Your task to perform on an android device: Empty the shopping cart on newegg. Add "logitech g502" to the cart on newegg, then select checkout. Image 0: 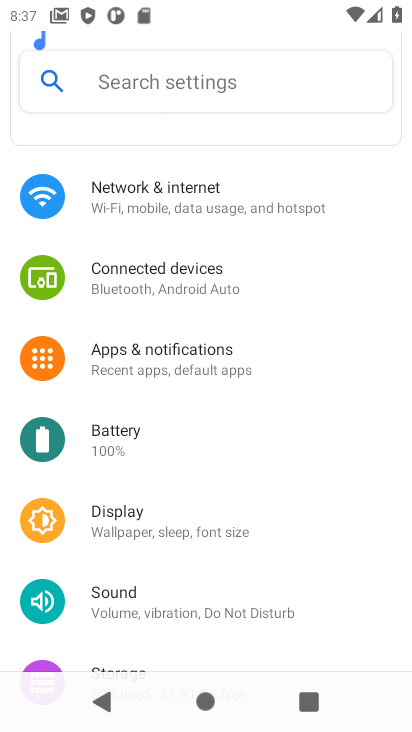
Step 0: press home button
Your task to perform on an android device: Empty the shopping cart on newegg. Add "logitech g502" to the cart on newegg, then select checkout. Image 1: 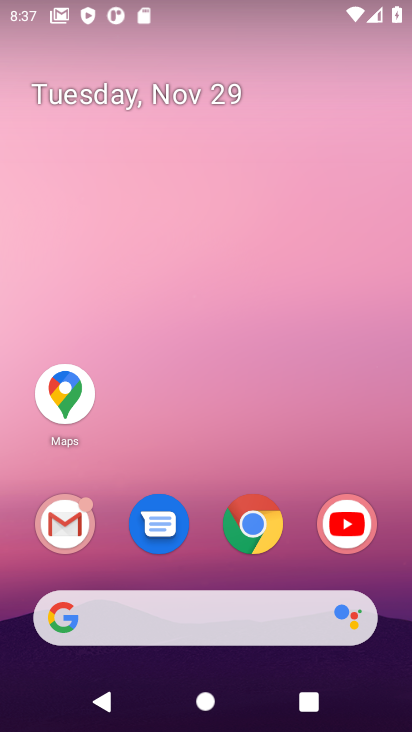
Step 1: click (248, 534)
Your task to perform on an android device: Empty the shopping cart on newegg. Add "logitech g502" to the cart on newegg, then select checkout. Image 2: 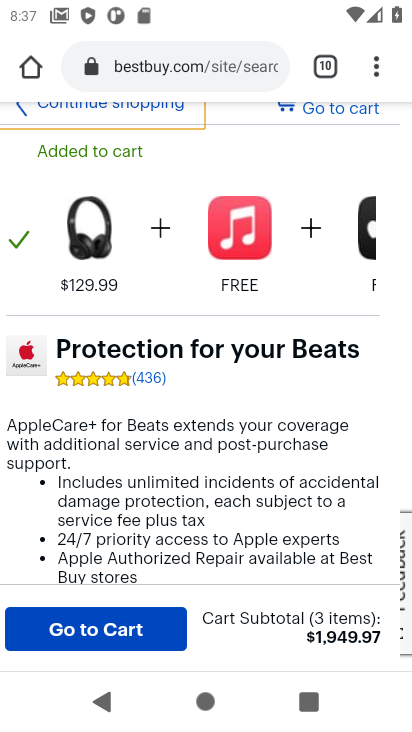
Step 2: click (148, 68)
Your task to perform on an android device: Empty the shopping cart on newegg. Add "logitech g502" to the cart on newegg, then select checkout. Image 3: 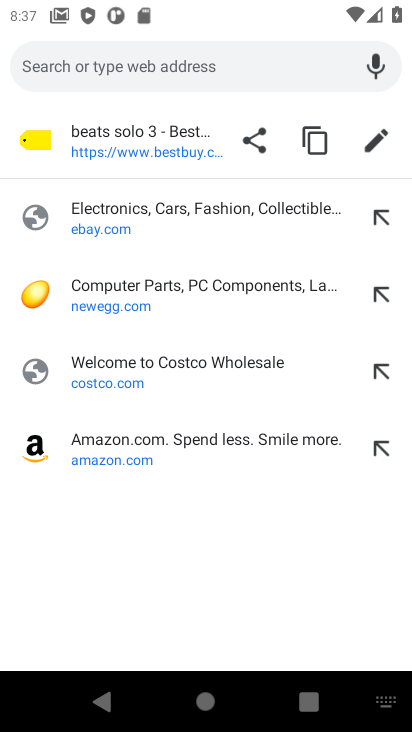
Step 3: click (105, 291)
Your task to perform on an android device: Empty the shopping cart on newegg. Add "logitech g502" to the cart on newegg, then select checkout. Image 4: 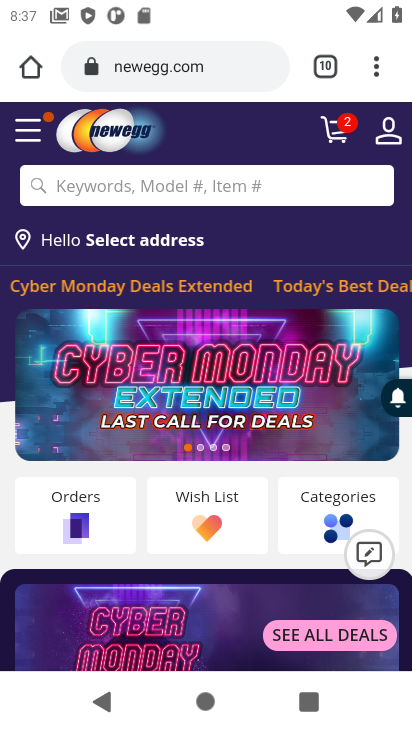
Step 4: click (337, 137)
Your task to perform on an android device: Empty the shopping cart on newegg. Add "logitech g502" to the cart on newegg, then select checkout. Image 5: 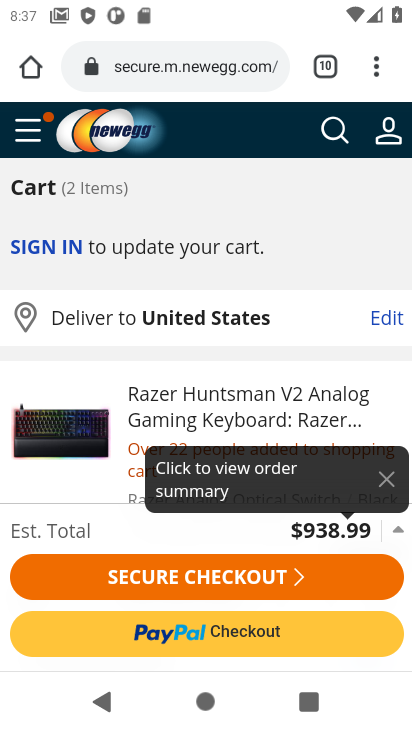
Step 5: drag from (170, 384) to (168, 240)
Your task to perform on an android device: Empty the shopping cart on newegg. Add "logitech g502" to the cart on newegg, then select checkout. Image 6: 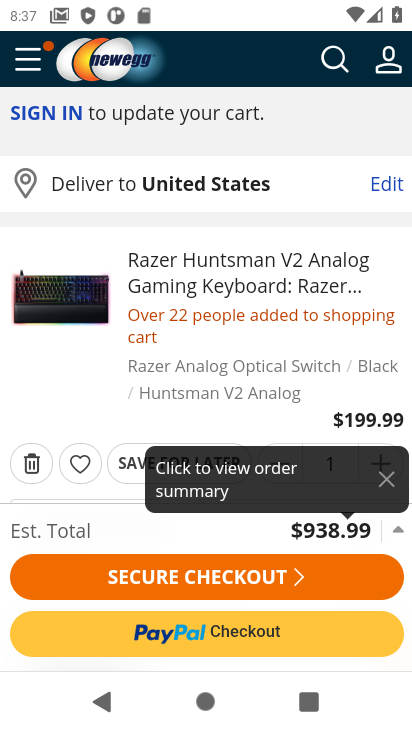
Step 6: drag from (168, 349) to (174, 251)
Your task to perform on an android device: Empty the shopping cart on newegg. Add "logitech g502" to the cart on newegg, then select checkout. Image 7: 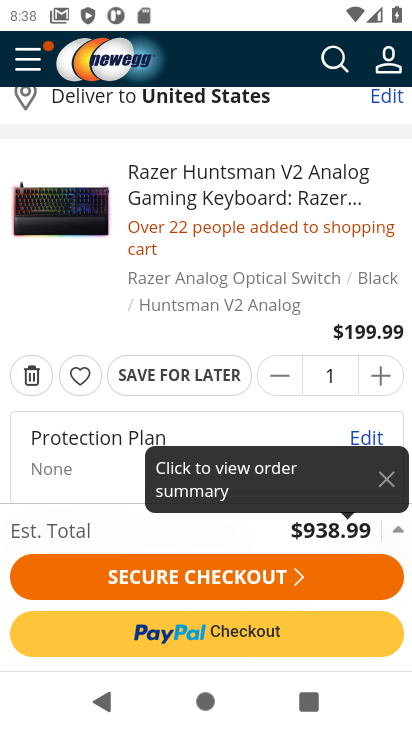
Step 7: click (33, 372)
Your task to perform on an android device: Empty the shopping cart on newegg. Add "logitech g502" to the cart on newegg, then select checkout. Image 8: 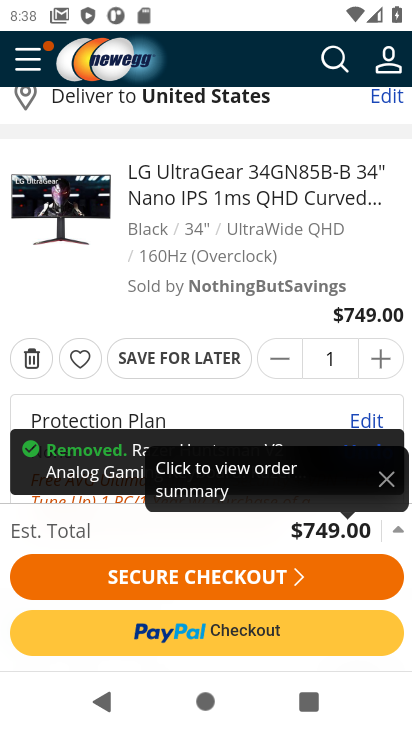
Step 8: click (33, 372)
Your task to perform on an android device: Empty the shopping cart on newegg. Add "logitech g502" to the cart on newegg, then select checkout. Image 9: 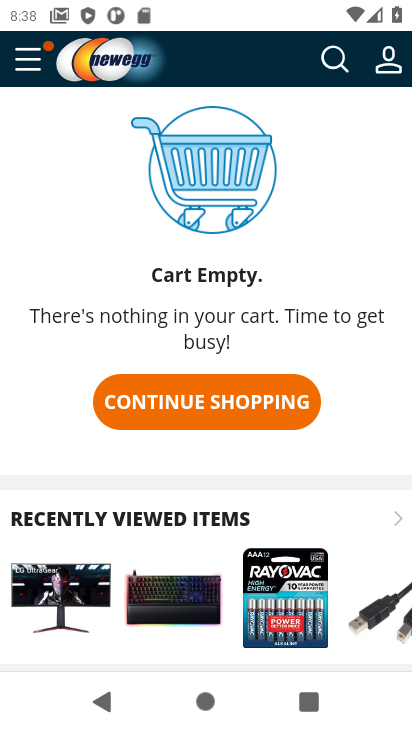
Step 9: click (333, 65)
Your task to perform on an android device: Empty the shopping cart on newegg. Add "logitech g502" to the cart on newegg, then select checkout. Image 10: 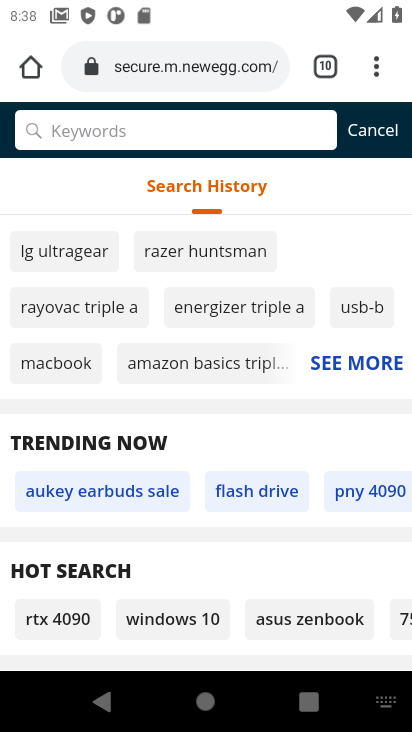
Step 10: type "logitech g502"
Your task to perform on an android device: Empty the shopping cart on newegg. Add "logitech g502" to the cart on newegg, then select checkout. Image 11: 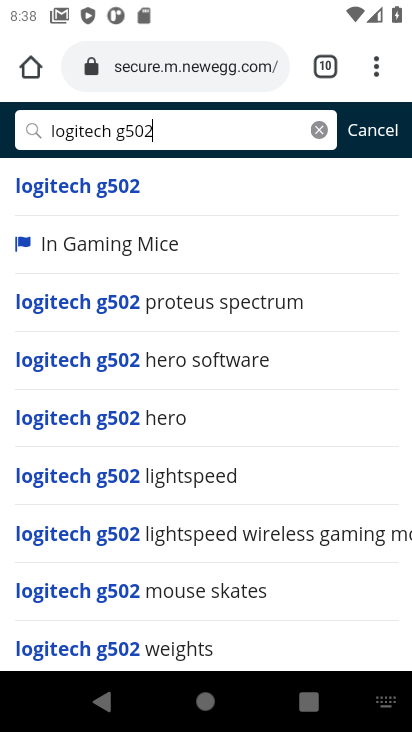
Step 11: click (102, 189)
Your task to perform on an android device: Empty the shopping cart on newegg. Add "logitech g502" to the cart on newegg, then select checkout. Image 12: 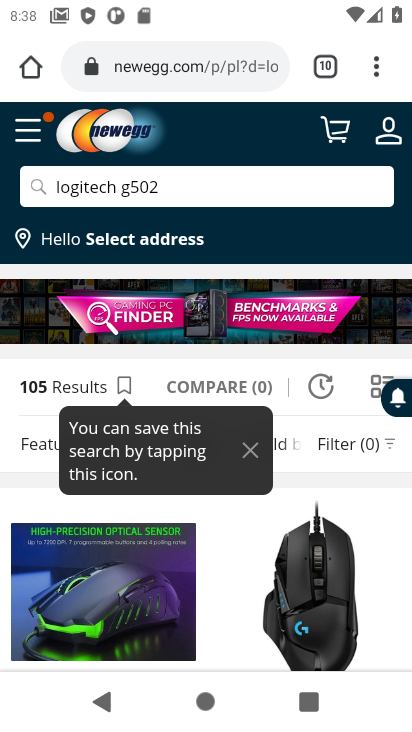
Step 12: drag from (217, 544) to (217, 265)
Your task to perform on an android device: Empty the shopping cart on newegg. Add "logitech g502" to the cart on newegg, then select checkout. Image 13: 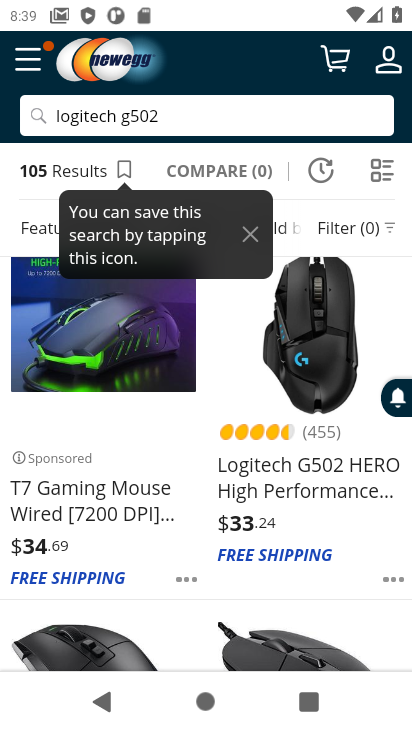
Step 13: click (306, 465)
Your task to perform on an android device: Empty the shopping cart on newegg. Add "logitech g502" to the cart on newegg, then select checkout. Image 14: 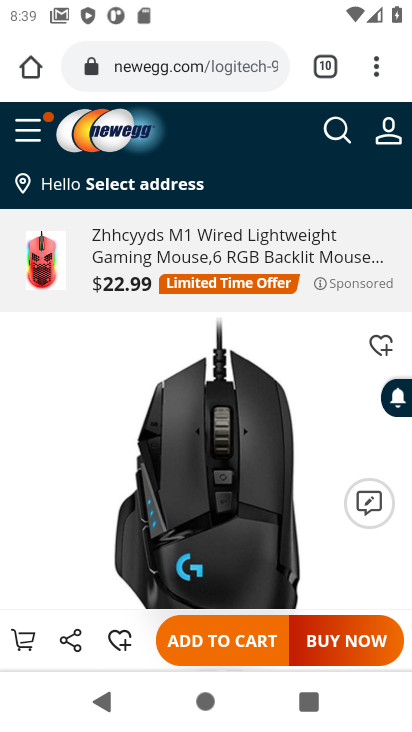
Step 14: click (223, 635)
Your task to perform on an android device: Empty the shopping cart on newegg. Add "logitech g502" to the cart on newegg, then select checkout. Image 15: 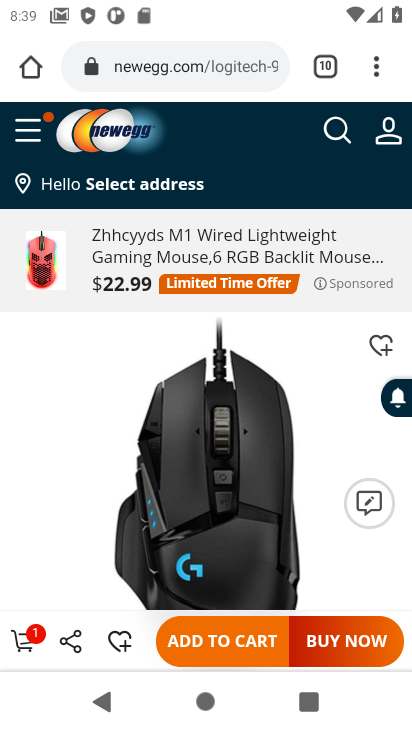
Step 15: click (24, 639)
Your task to perform on an android device: Empty the shopping cart on newegg. Add "logitech g502" to the cart on newegg, then select checkout. Image 16: 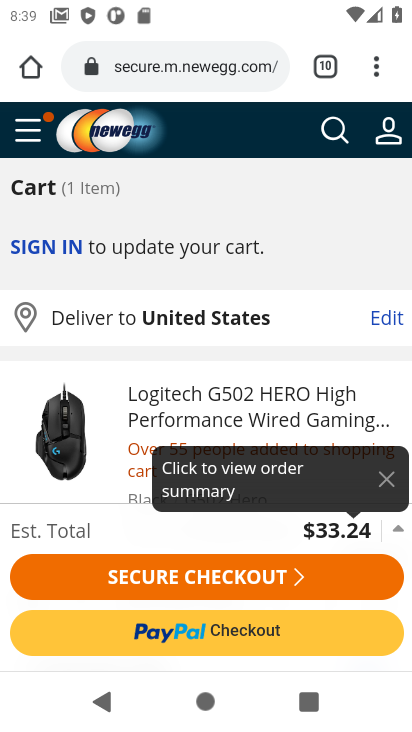
Step 16: click (172, 573)
Your task to perform on an android device: Empty the shopping cart on newegg. Add "logitech g502" to the cart on newegg, then select checkout. Image 17: 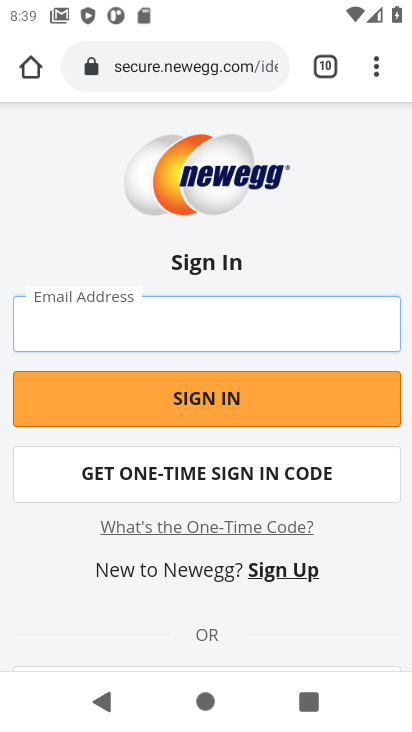
Step 17: task complete